Your task to perform on an android device: Show the shopping cart on costco.com. Search for "energizer triple a" on costco.com, select the first entry, and add it to the cart. Image 0: 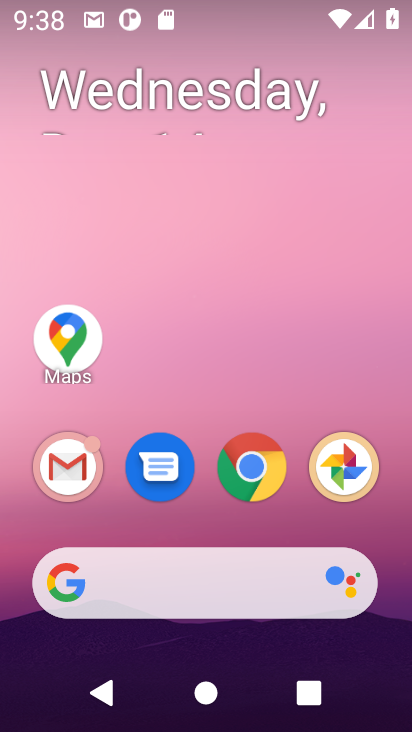
Step 0: click (278, 488)
Your task to perform on an android device: Show the shopping cart on costco.com. Search for "energizer triple a" on costco.com, select the first entry, and add it to the cart. Image 1: 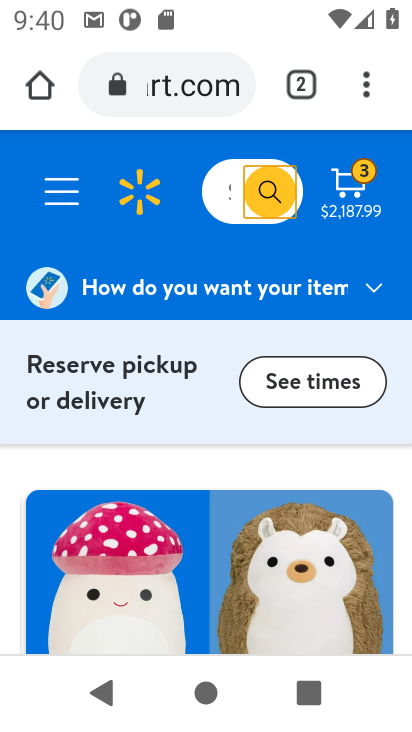
Step 1: task complete